Your task to perform on an android device: What's on my calendar tomorrow? Image 0: 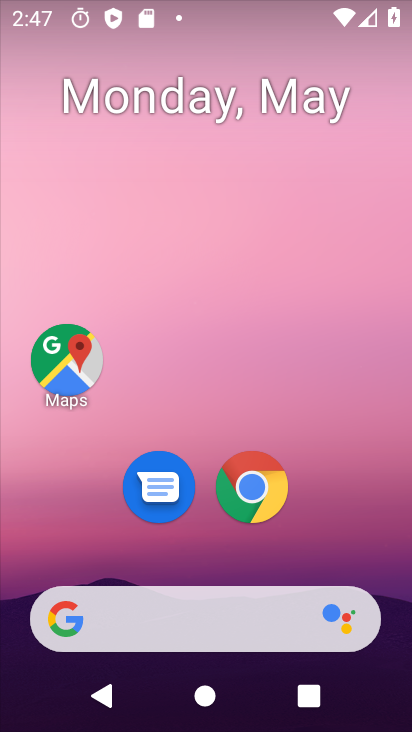
Step 0: drag from (216, 556) to (242, 69)
Your task to perform on an android device: What's on my calendar tomorrow? Image 1: 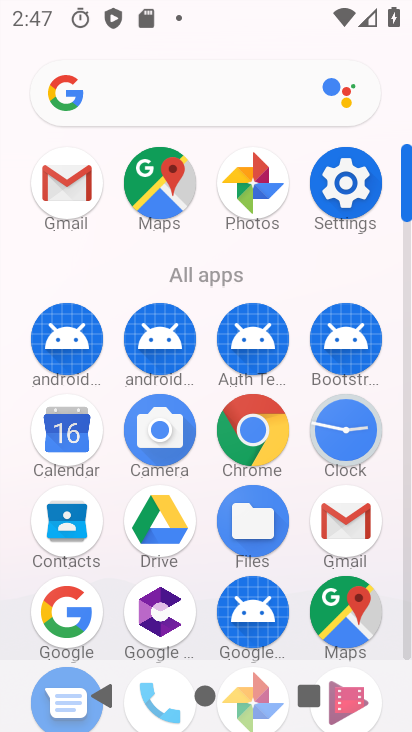
Step 1: click (83, 443)
Your task to perform on an android device: What's on my calendar tomorrow? Image 2: 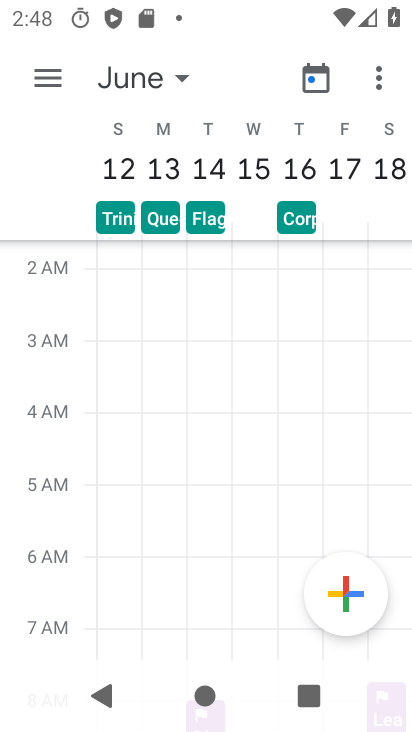
Step 2: drag from (147, 150) to (404, 169)
Your task to perform on an android device: What's on my calendar tomorrow? Image 3: 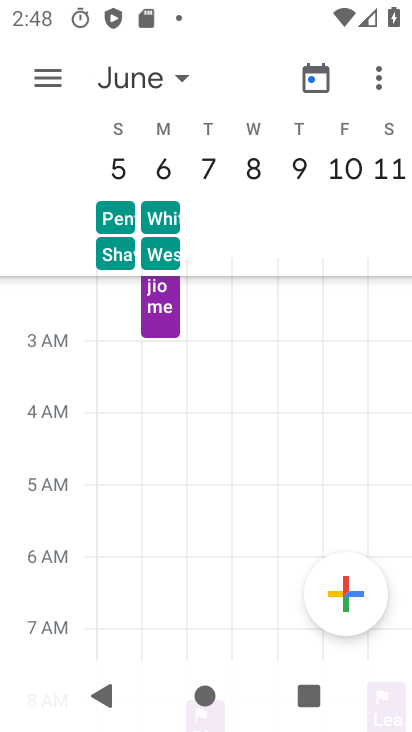
Step 3: drag from (154, 209) to (332, 180)
Your task to perform on an android device: What's on my calendar tomorrow? Image 4: 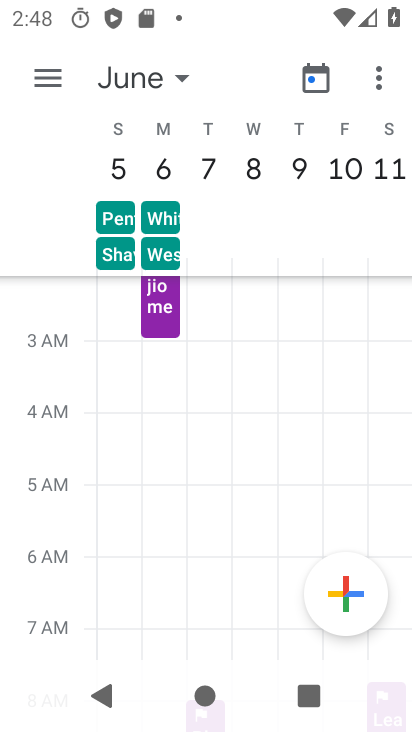
Step 4: click (147, 76)
Your task to perform on an android device: What's on my calendar tomorrow? Image 5: 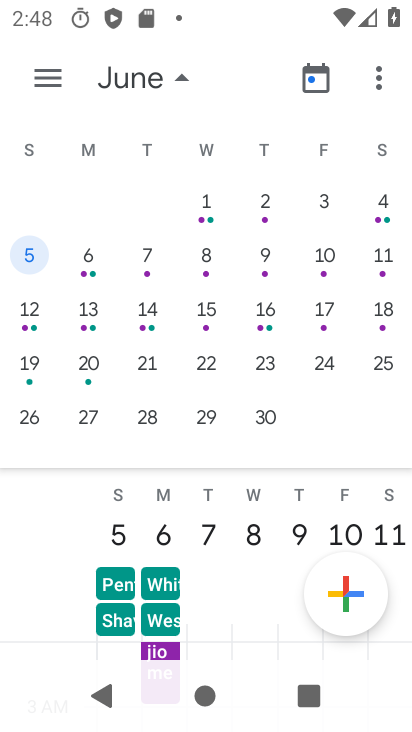
Step 5: drag from (271, 286) to (410, 363)
Your task to perform on an android device: What's on my calendar tomorrow? Image 6: 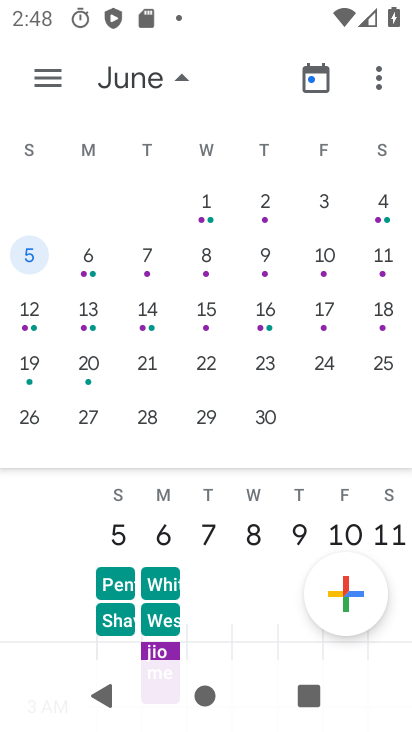
Step 6: drag from (220, 284) to (394, 304)
Your task to perform on an android device: What's on my calendar tomorrow? Image 7: 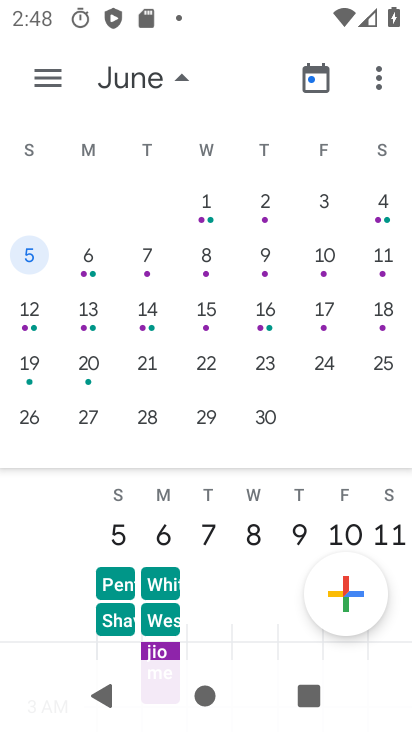
Step 7: drag from (34, 243) to (405, 358)
Your task to perform on an android device: What's on my calendar tomorrow? Image 8: 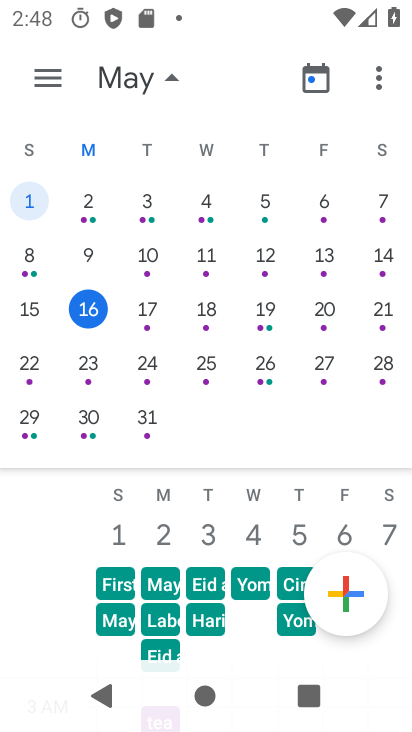
Step 8: click (53, 71)
Your task to perform on an android device: What's on my calendar tomorrow? Image 9: 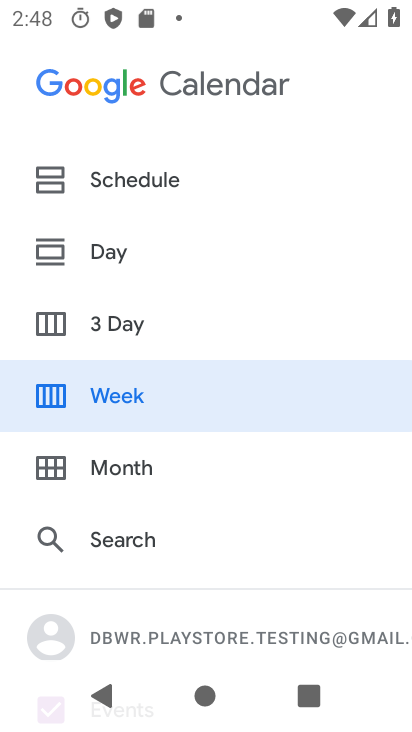
Step 9: click (126, 331)
Your task to perform on an android device: What's on my calendar tomorrow? Image 10: 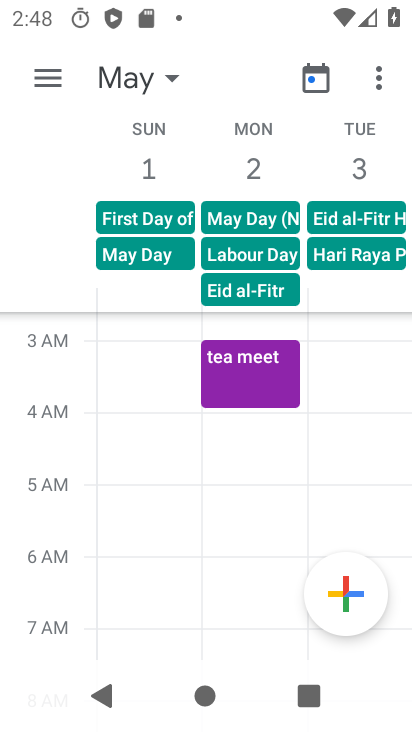
Step 10: task complete